Your task to perform on an android device: turn pop-ups off in chrome Image 0: 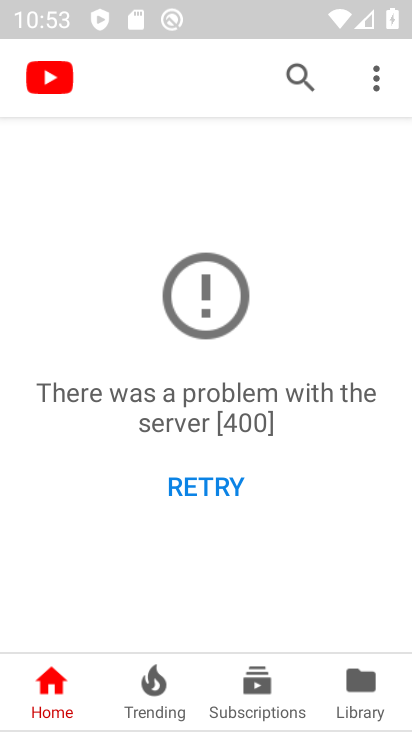
Step 0: press home button
Your task to perform on an android device: turn pop-ups off in chrome Image 1: 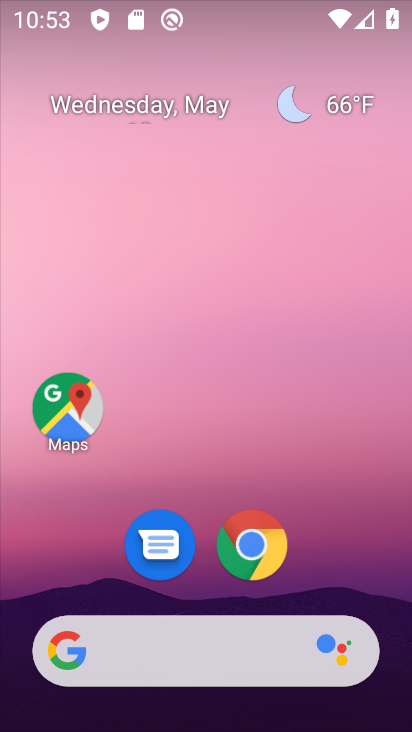
Step 1: drag from (171, 722) to (188, 4)
Your task to perform on an android device: turn pop-ups off in chrome Image 2: 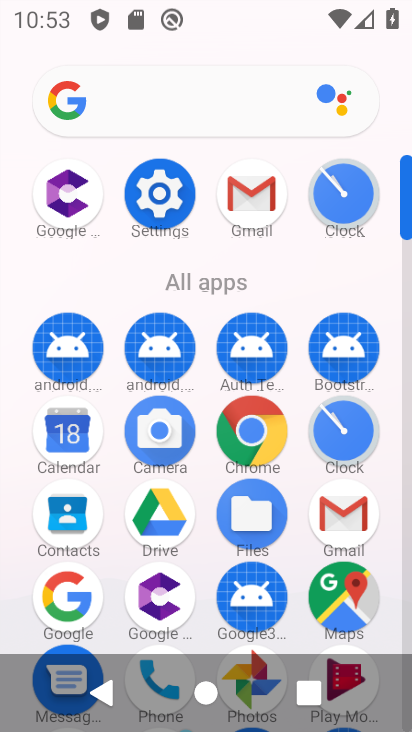
Step 2: click (224, 432)
Your task to perform on an android device: turn pop-ups off in chrome Image 3: 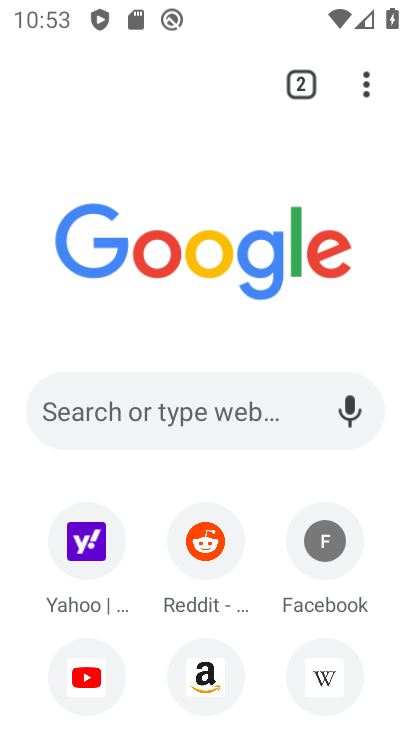
Step 3: click (357, 79)
Your task to perform on an android device: turn pop-ups off in chrome Image 4: 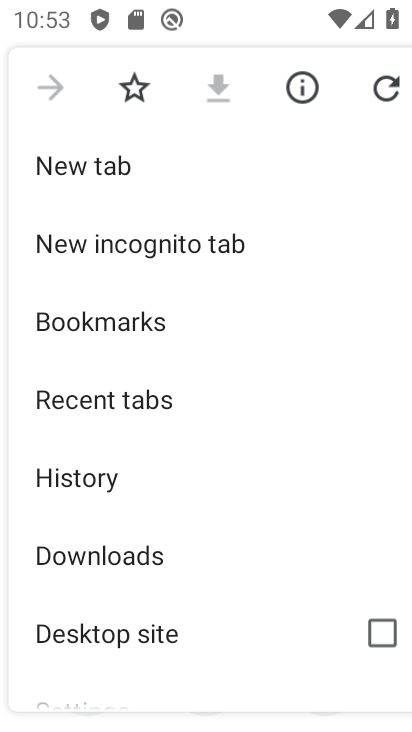
Step 4: drag from (162, 651) to (217, 111)
Your task to perform on an android device: turn pop-ups off in chrome Image 5: 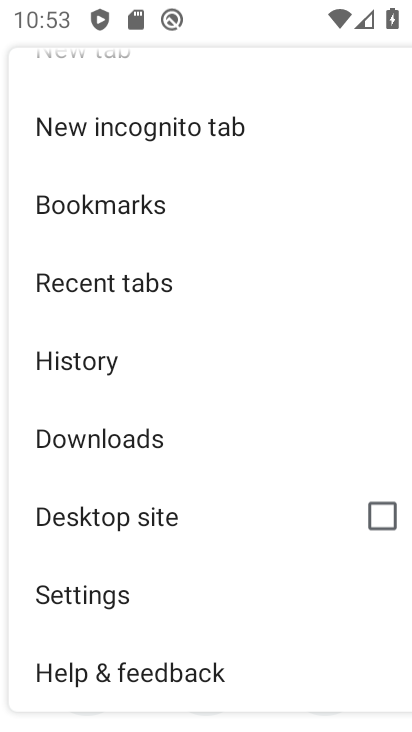
Step 5: click (112, 594)
Your task to perform on an android device: turn pop-ups off in chrome Image 6: 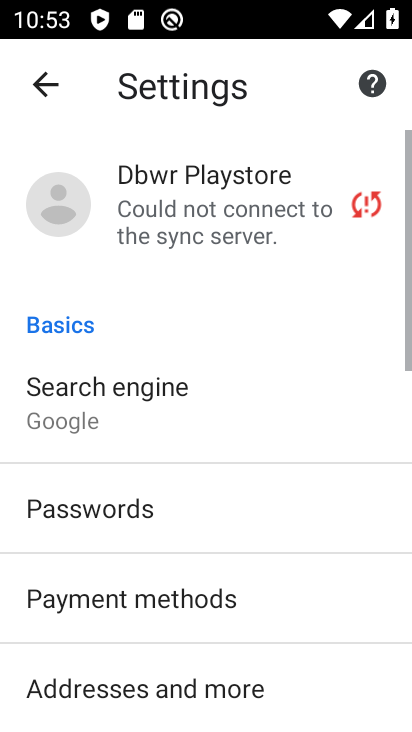
Step 6: drag from (269, 677) to (279, 188)
Your task to perform on an android device: turn pop-ups off in chrome Image 7: 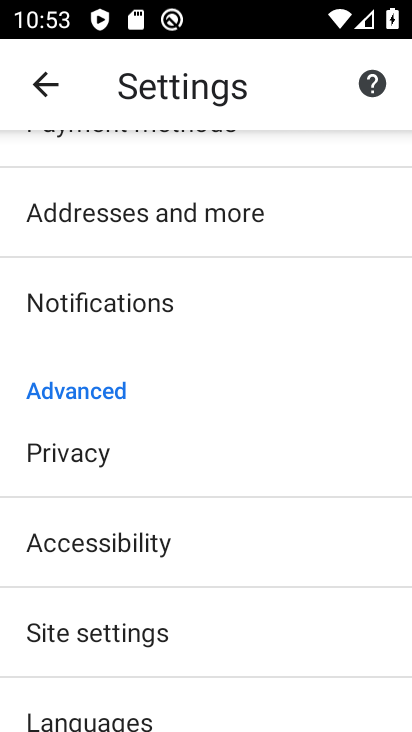
Step 7: click (146, 622)
Your task to perform on an android device: turn pop-ups off in chrome Image 8: 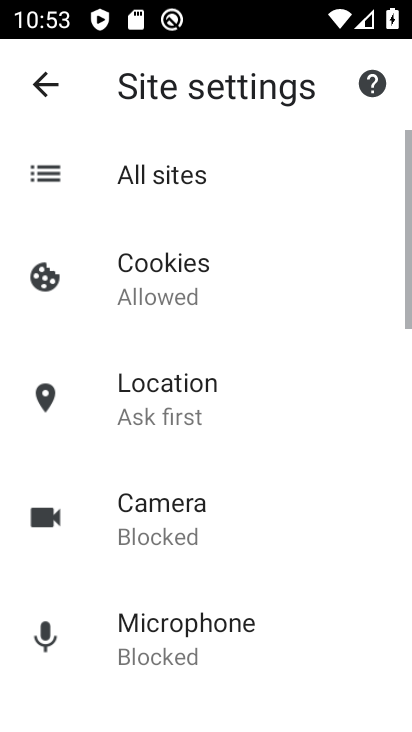
Step 8: drag from (260, 673) to (326, 225)
Your task to perform on an android device: turn pop-ups off in chrome Image 9: 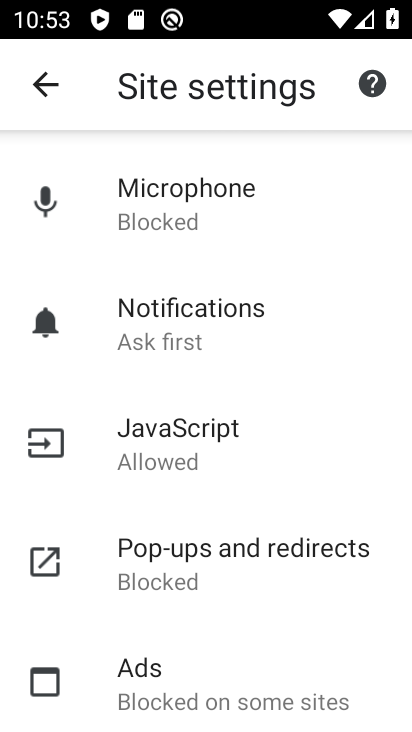
Step 9: click (233, 564)
Your task to perform on an android device: turn pop-ups off in chrome Image 10: 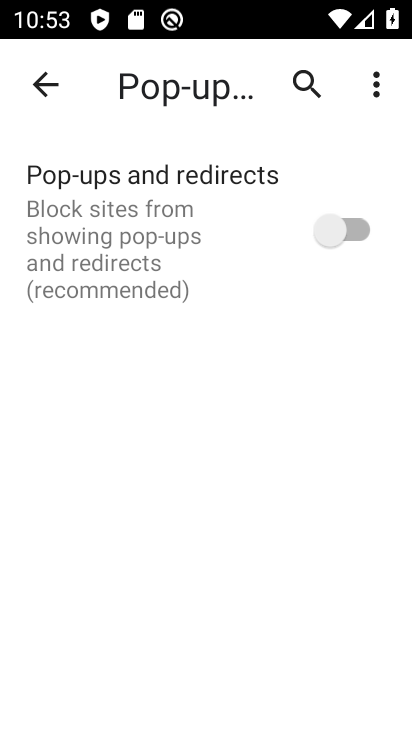
Step 10: task complete